Your task to perform on an android device: open app "Microsoft Authenticator" Image 0: 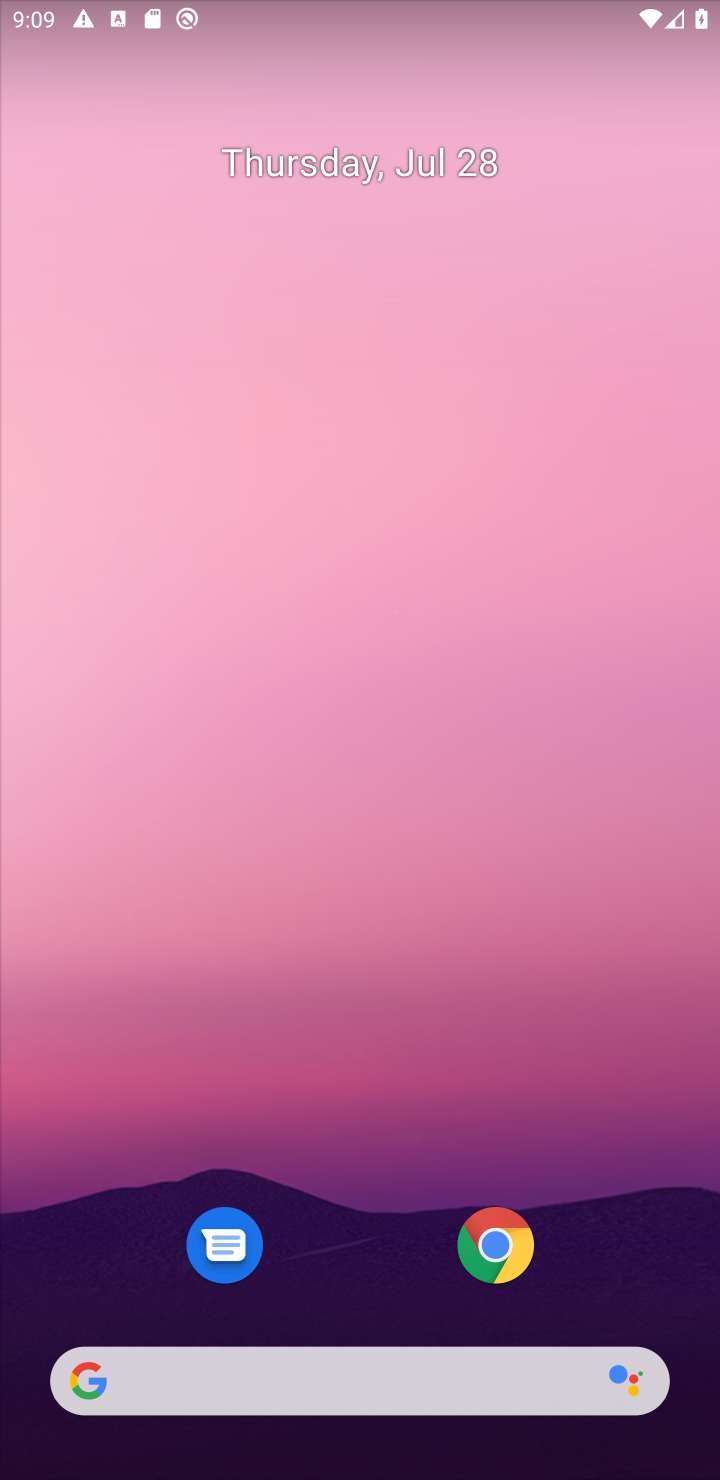
Step 0: press home button
Your task to perform on an android device: open app "Microsoft Authenticator" Image 1: 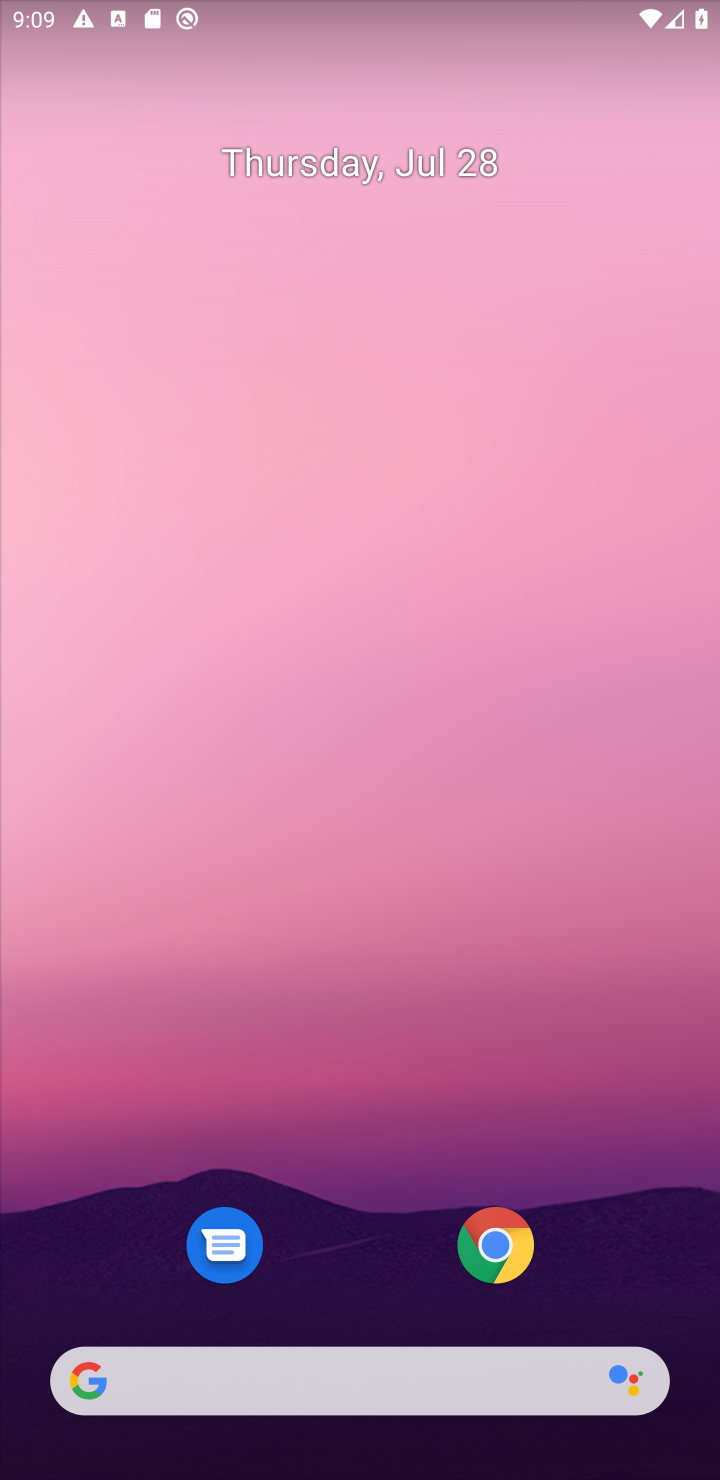
Step 1: drag from (362, 758) to (356, 295)
Your task to perform on an android device: open app "Microsoft Authenticator" Image 2: 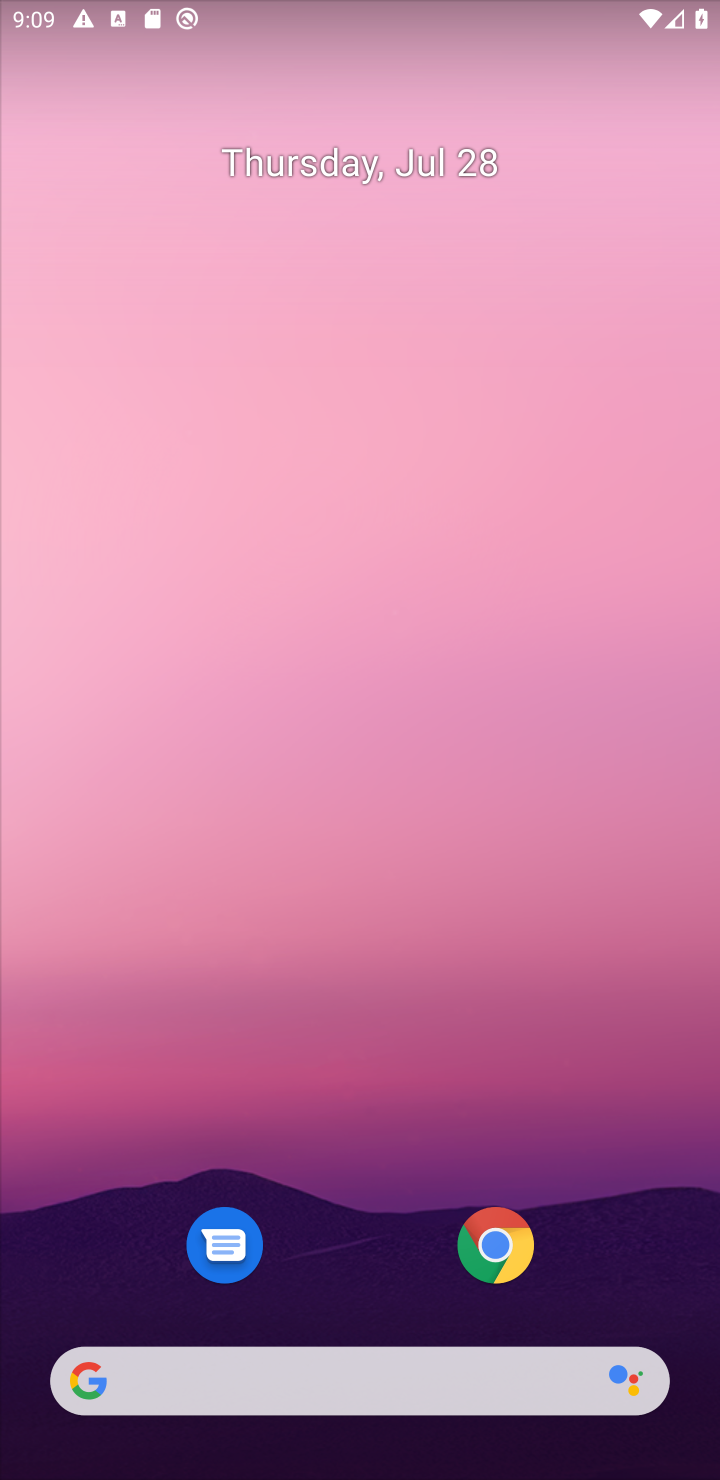
Step 2: drag from (345, 1244) to (323, 104)
Your task to perform on an android device: open app "Microsoft Authenticator" Image 3: 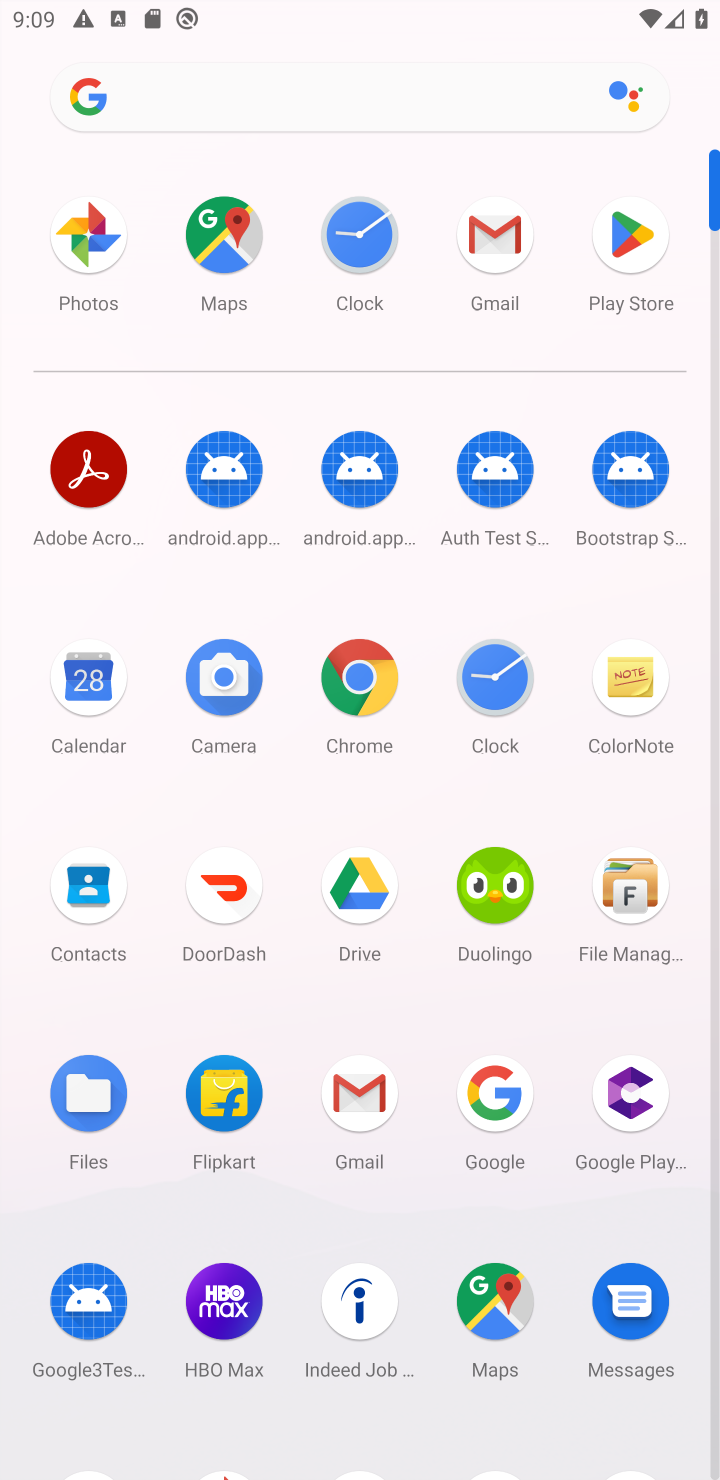
Step 3: click (647, 240)
Your task to perform on an android device: open app "Microsoft Authenticator" Image 4: 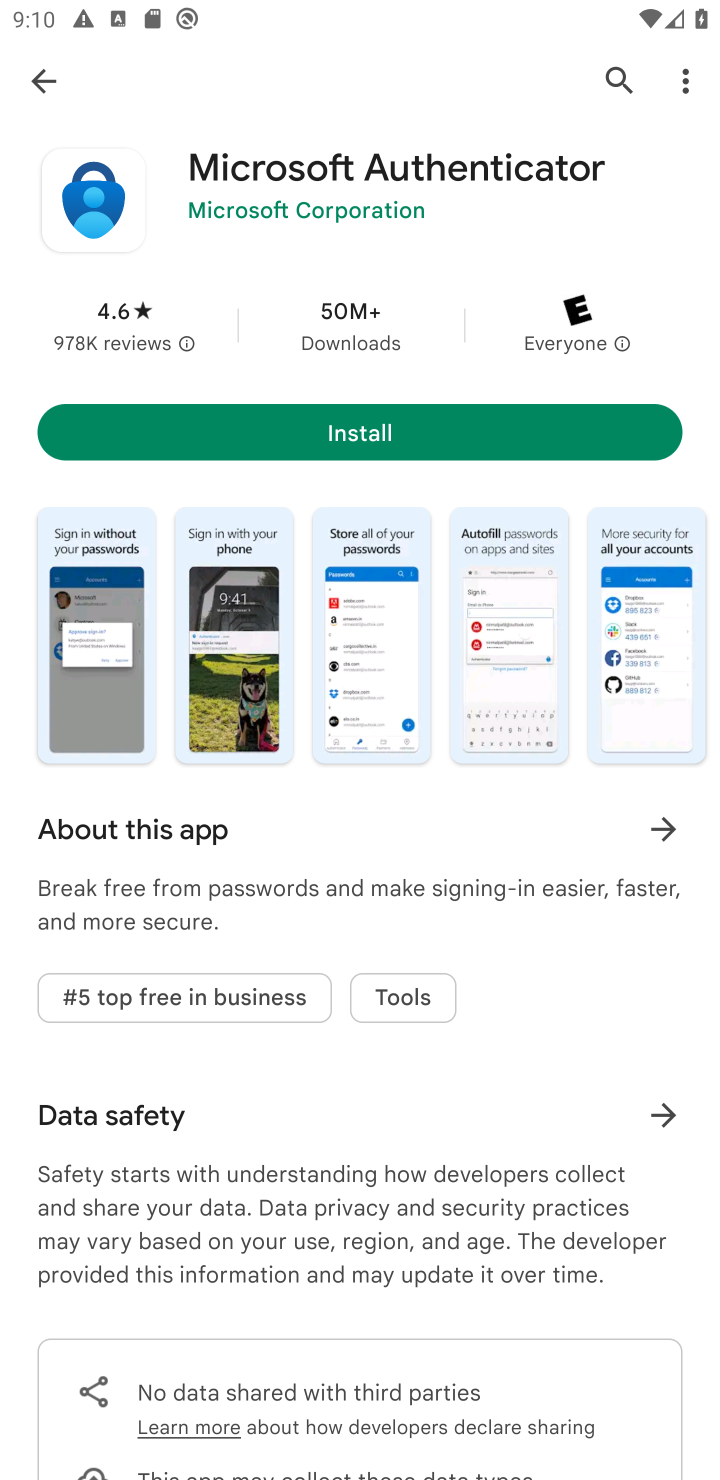
Step 4: task complete